Your task to perform on an android device: Open Yahoo.com Image 0: 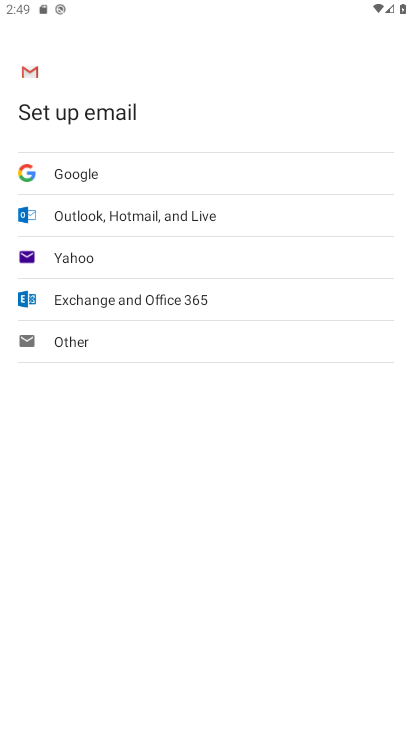
Step 0: press home button
Your task to perform on an android device: Open Yahoo.com Image 1: 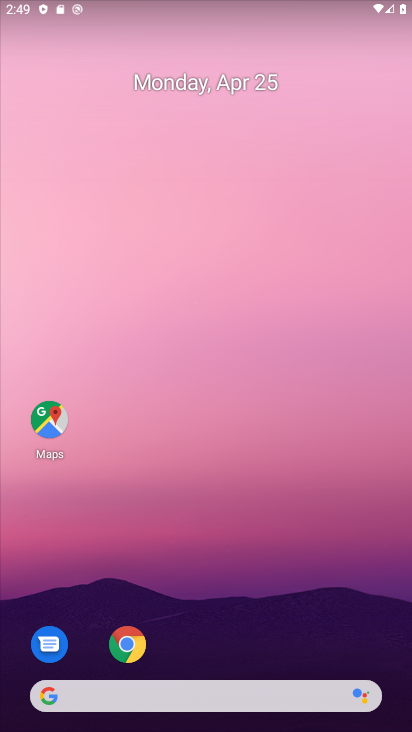
Step 1: click (124, 646)
Your task to perform on an android device: Open Yahoo.com Image 2: 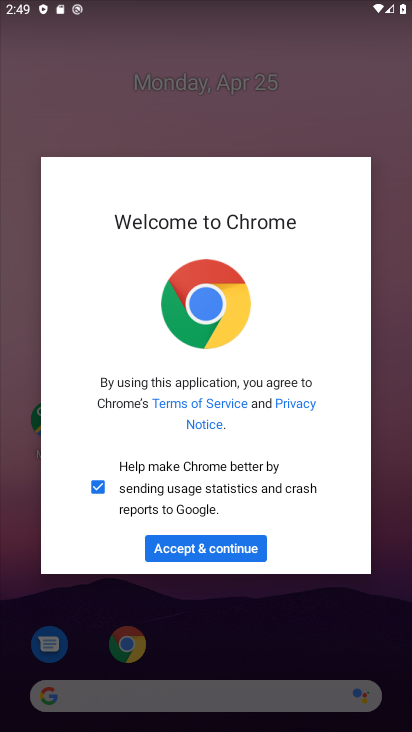
Step 2: click (218, 547)
Your task to perform on an android device: Open Yahoo.com Image 3: 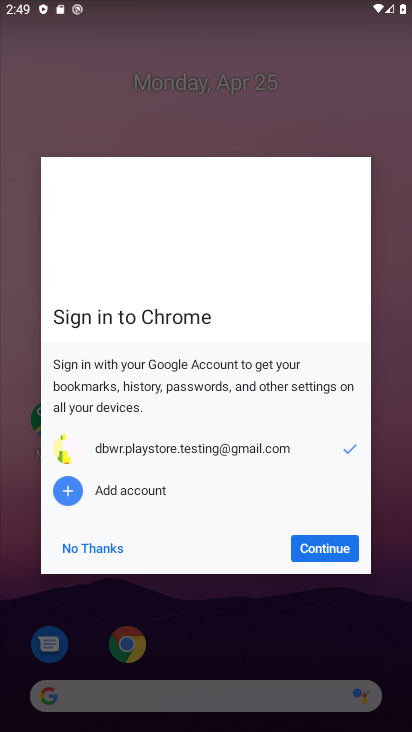
Step 3: click (311, 544)
Your task to perform on an android device: Open Yahoo.com Image 4: 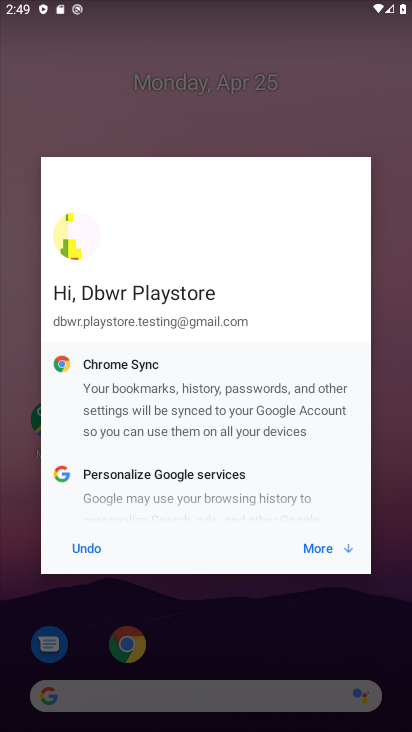
Step 4: click (311, 544)
Your task to perform on an android device: Open Yahoo.com Image 5: 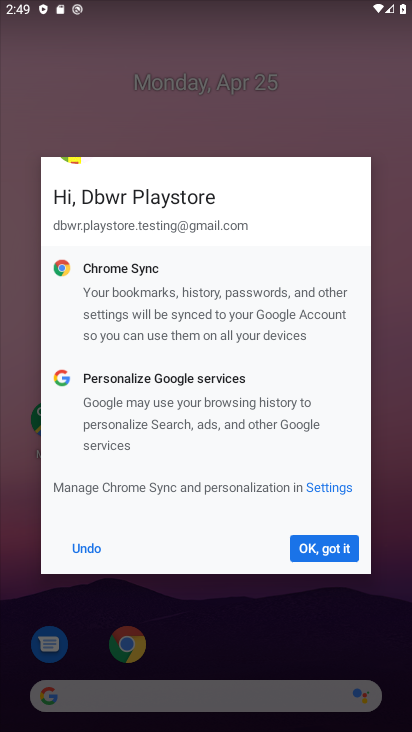
Step 5: click (311, 544)
Your task to perform on an android device: Open Yahoo.com Image 6: 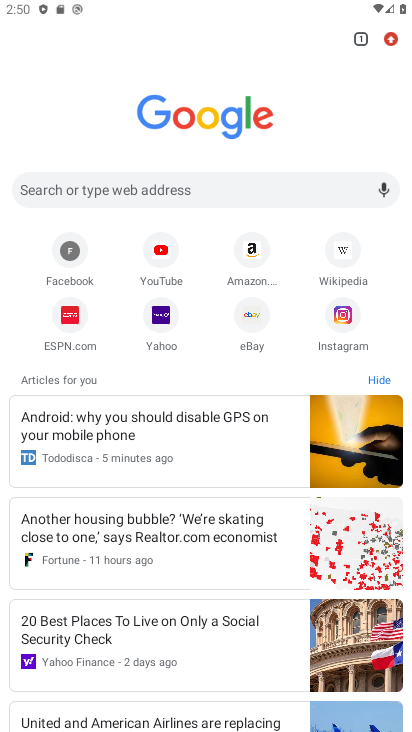
Step 6: click (162, 323)
Your task to perform on an android device: Open Yahoo.com Image 7: 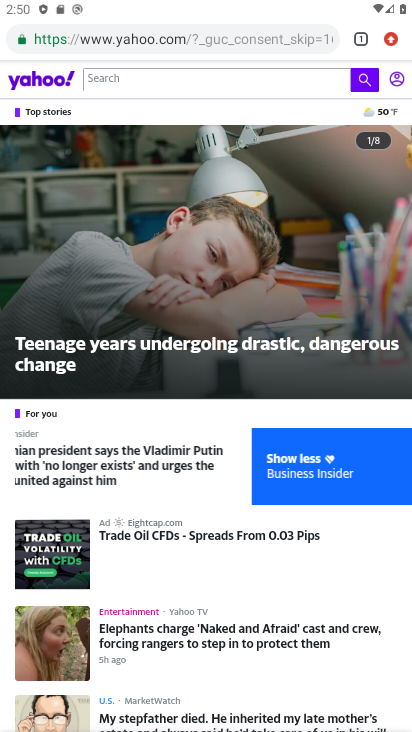
Step 7: task complete